Your task to perform on an android device: Go to battery settings Image 0: 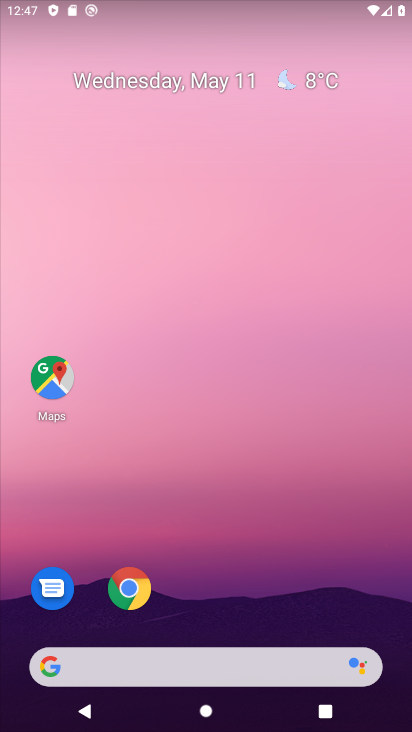
Step 0: drag from (256, 608) to (301, 158)
Your task to perform on an android device: Go to battery settings Image 1: 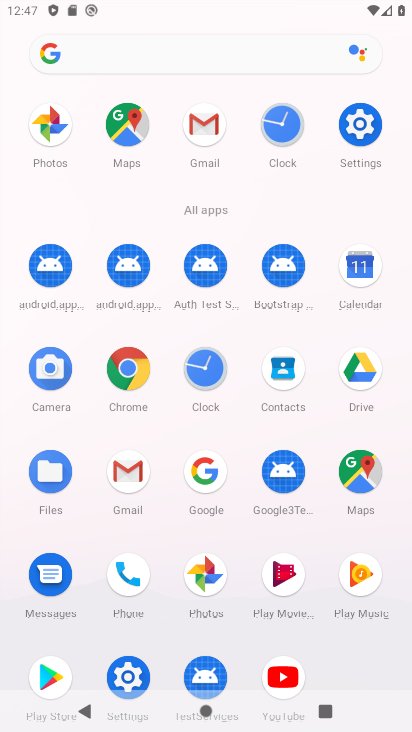
Step 1: click (346, 143)
Your task to perform on an android device: Go to battery settings Image 2: 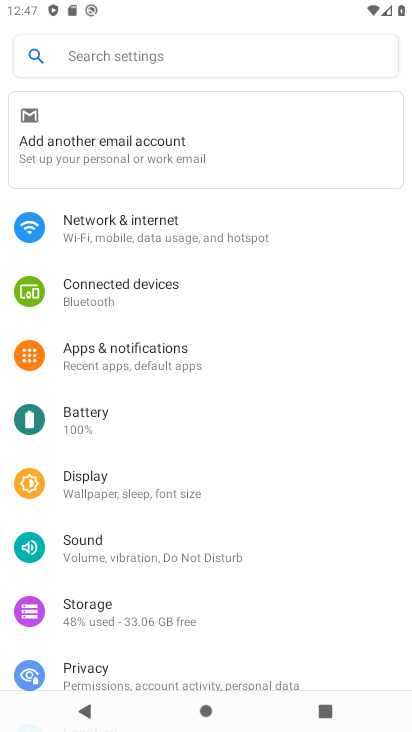
Step 2: drag from (274, 233) to (286, 121)
Your task to perform on an android device: Go to battery settings Image 3: 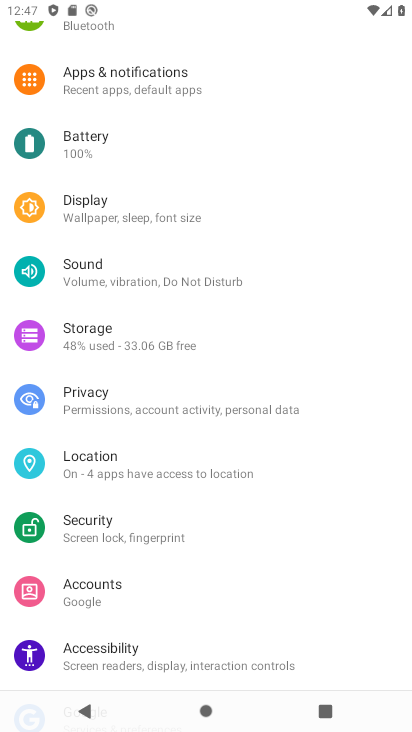
Step 3: click (104, 159)
Your task to perform on an android device: Go to battery settings Image 4: 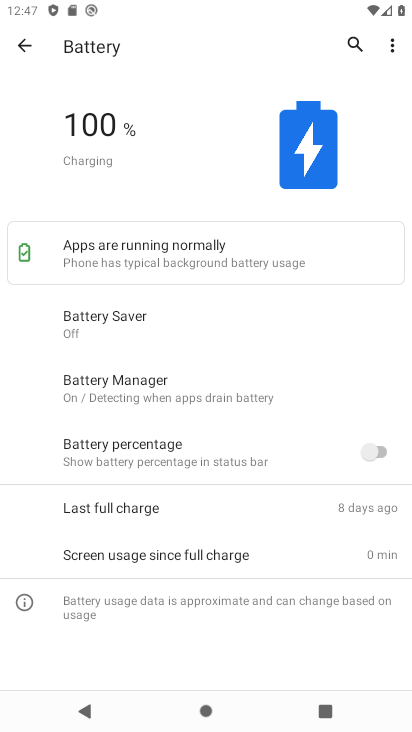
Step 4: task complete